Your task to perform on an android device: check data usage Image 0: 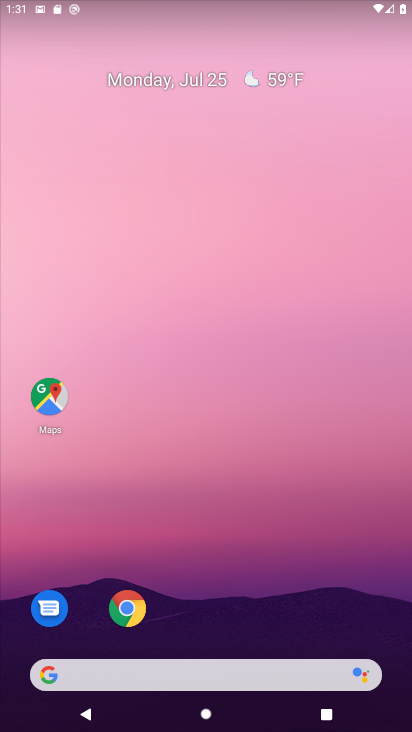
Step 0: drag from (389, 637) to (348, 102)
Your task to perform on an android device: check data usage Image 1: 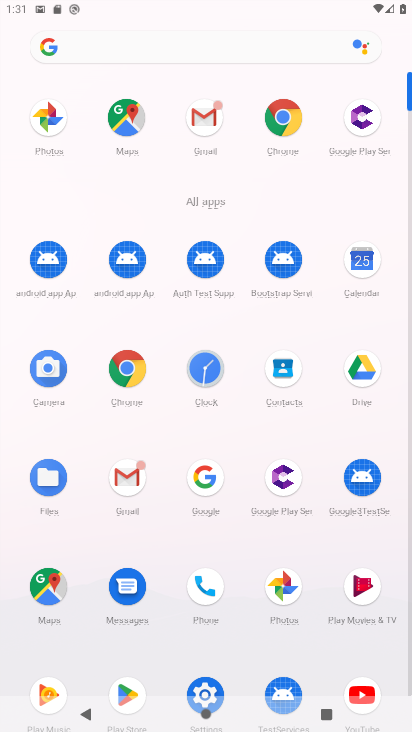
Step 1: drag from (215, 648) to (243, 358)
Your task to perform on an android device: check data usage Image 2: 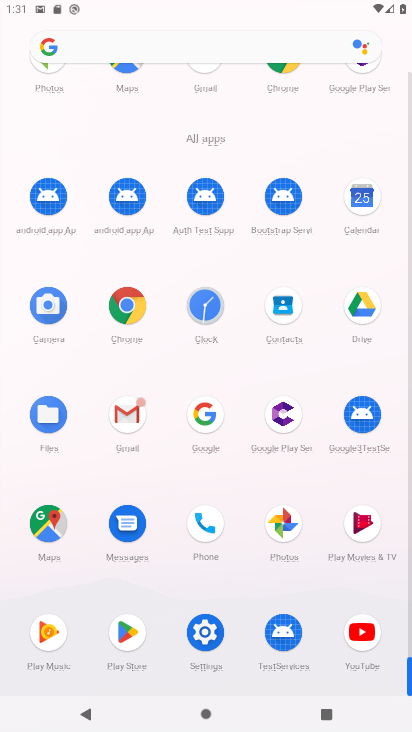
Step 2: click (207, 636)
Your task to perform on an android device: check data usage Image 3: 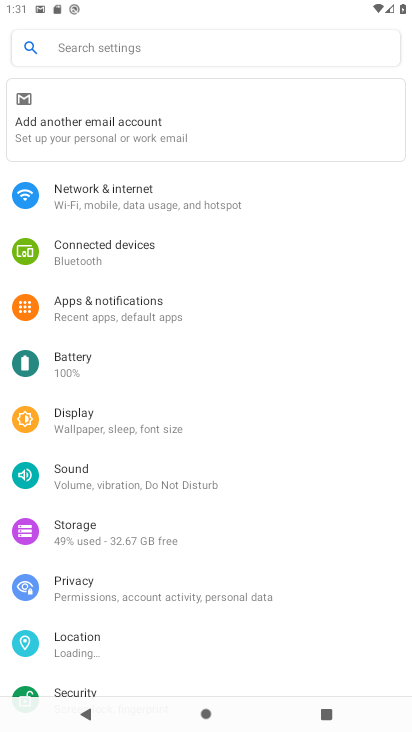
Step 3: click (91, 201)
Your task to perform on an android device: check data usage Image 4: 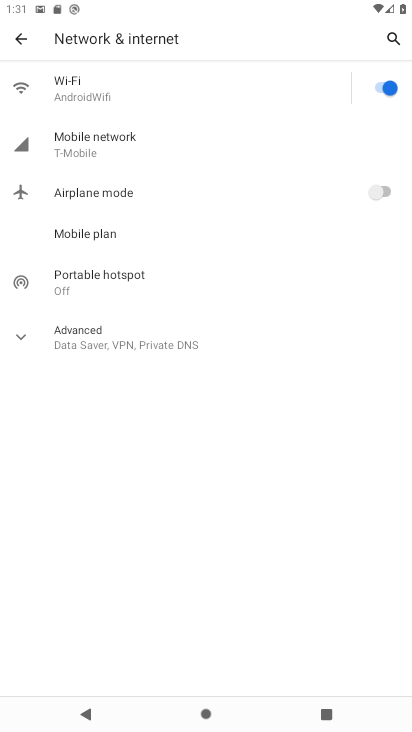
Step 4: click (78, 147)
Your task to perform on an android device: check data usage Image 5: 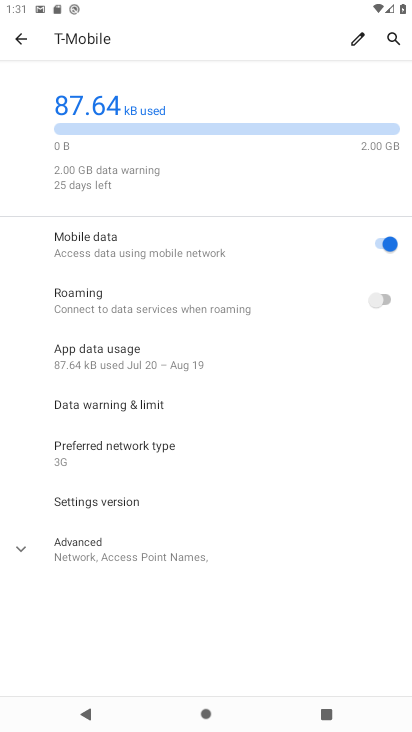
Step 5: task complete